Your task to perform on an android device: turn on sleep mode Image 0: 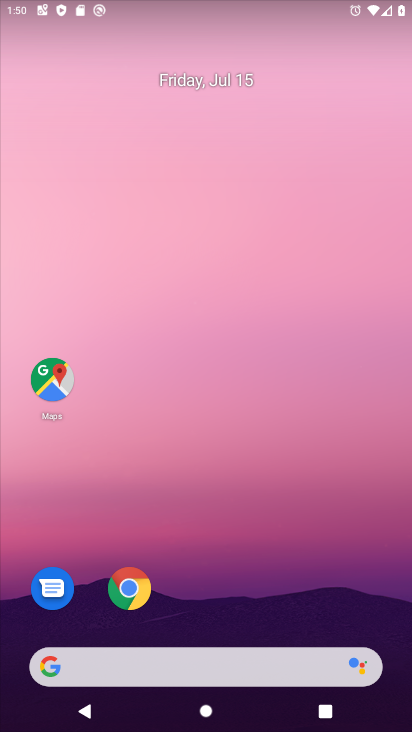
Step 0: drag from (220, 596) to (281, 229)
Your task to perform on an android device: turn on sleep mode Image 1: 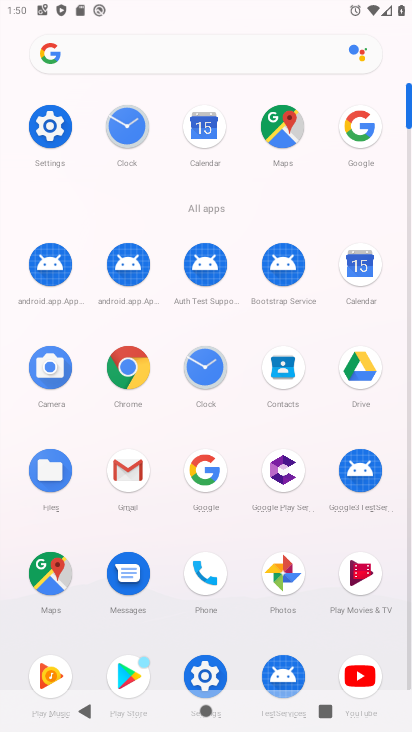
Step 1: click (50, 126)
Your task to perform on an android device: turn on sleep mode Image 2: 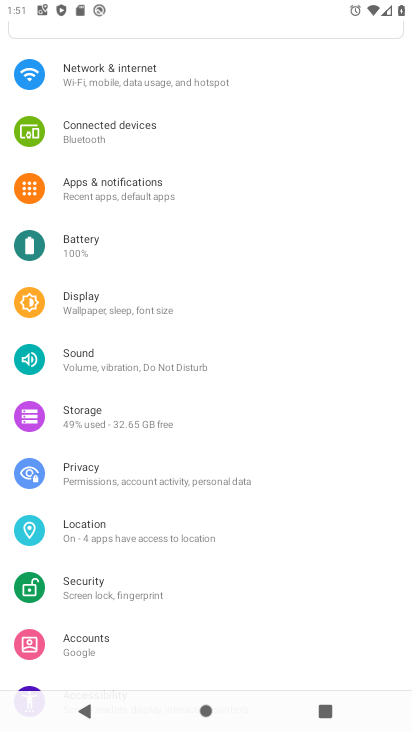
Step 2: click (108, 82)
Your task to perform on an android device: turn on sleep mode Image 3: 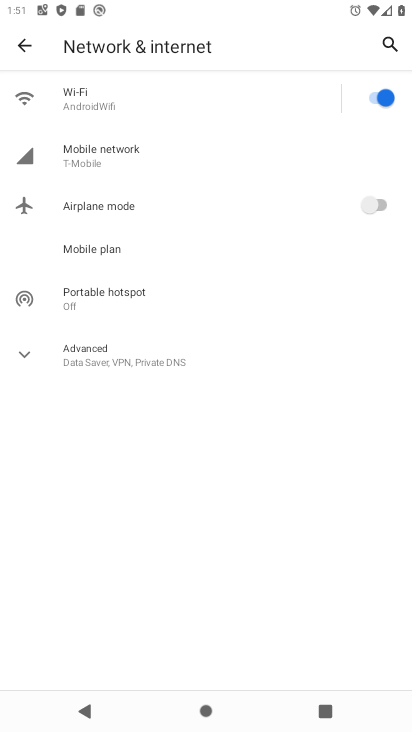
Step 3: press back button
Your task to perform on an android device: turn on sleep mode Image 4: 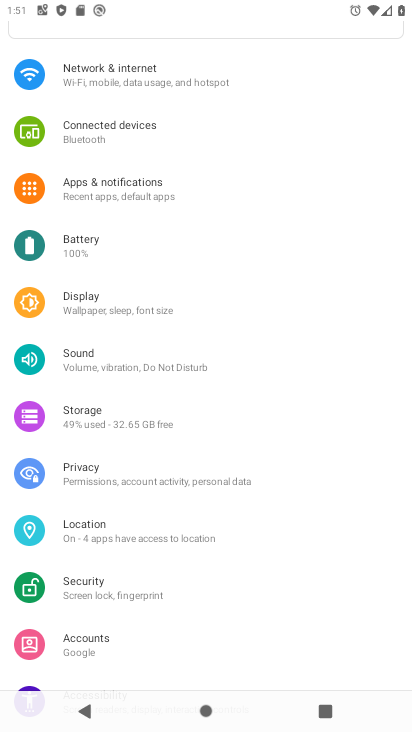
Step 4: click (108, 301)
Your task to perform on an android device: turn on sleep mode Image 5: 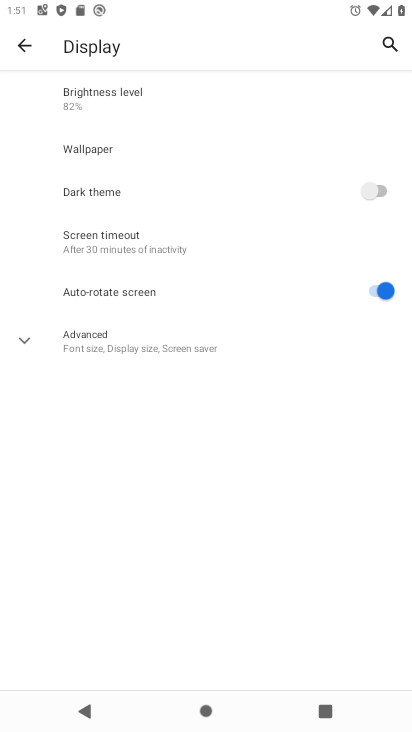
Step 5: click (99, 248)
Your task to perform on an android device: turn on sleep mode Image 6: 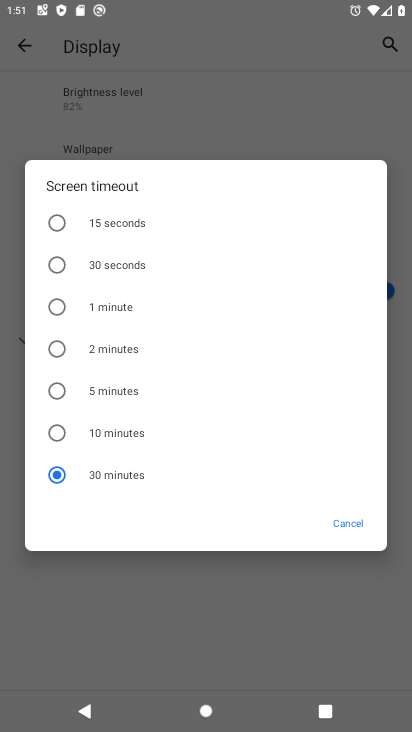
Step 6: click (94, 269)
Your task to perform on an android device: turn on sleep mode Image 7: 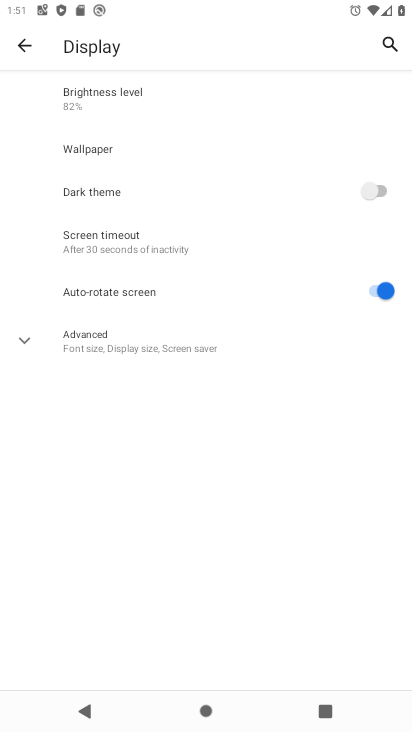
Step 7: click (141, 361)
Your task to perform on an android device: turn on sleep mode Image 8: 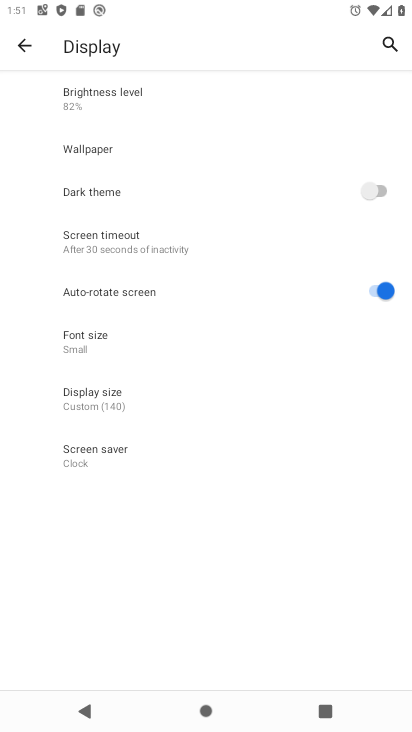
Step 8: click (88, 456)
Your task to perform on an android device: turn on sleep mode Image 9: 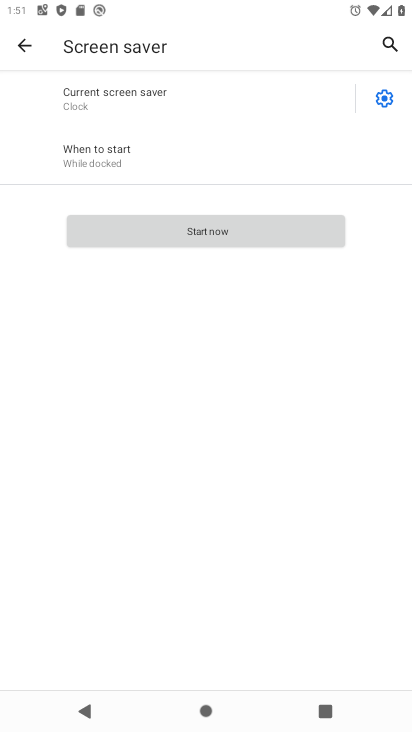
Step 9: click (384, 98)
Your task to perform on an android device: turn on sleep mode Image 10: 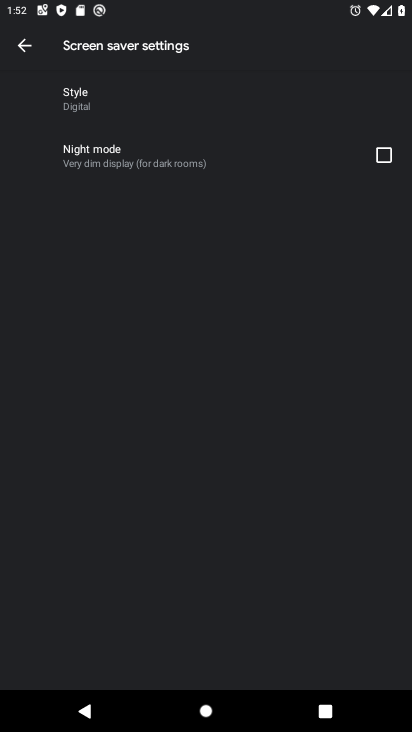
Step 10: click (154, 174)
Your task to perform on an android device: turn on sleep mode Image 11: 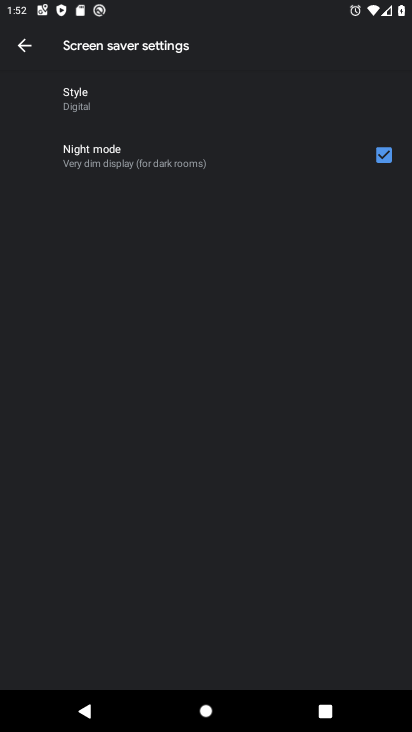
Step 11: click (32, 53)
Your task to perform on an android device: turn on sleep mode Image 12: 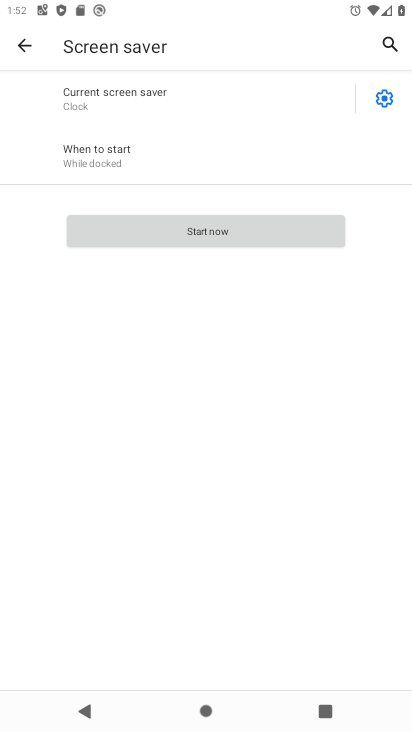
Step 12: task complete